Your task to perform on an android device: uninstall "Spotify: Music and Podcasts" Image 0: 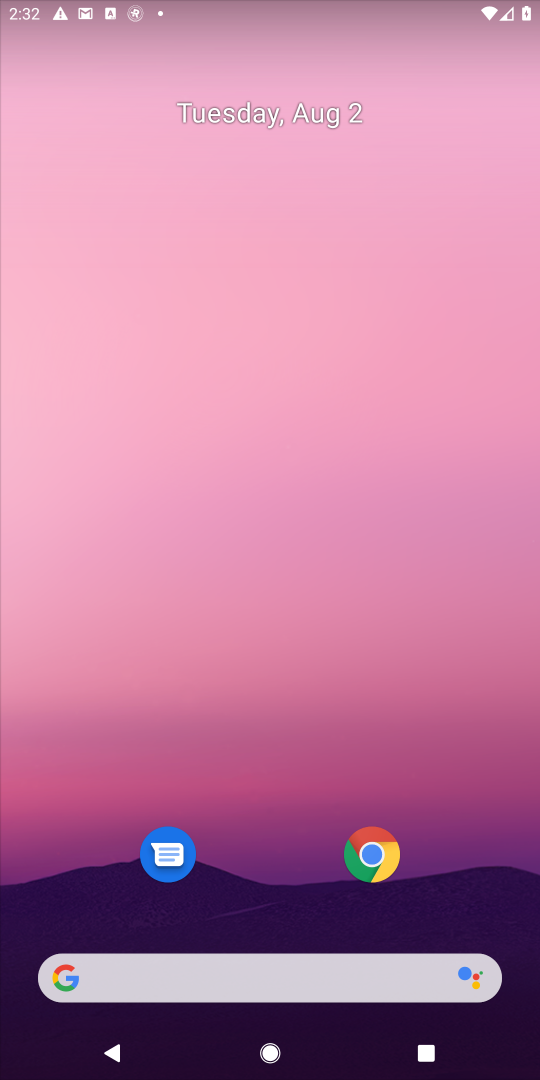
Step 0: drag from (318, 1062) to (305, 207)
Your task to perform on an android device: uninstall "Spotify: Music and Podcasts" Image 1: 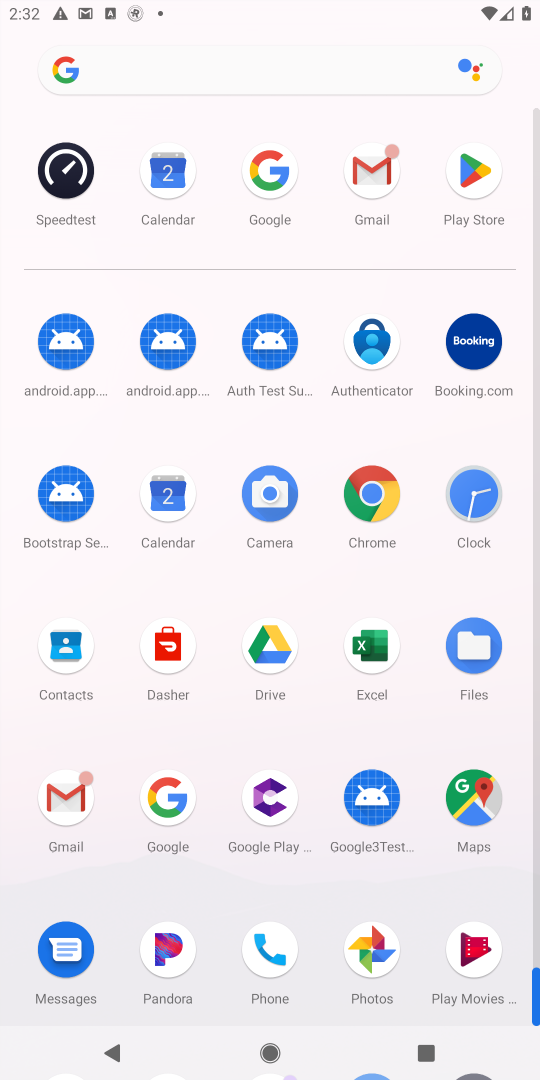
Step 1: click (484, 176)
Your task to perform on an android device: uninstall "Spotify: Music and Podcasts" Image 2: 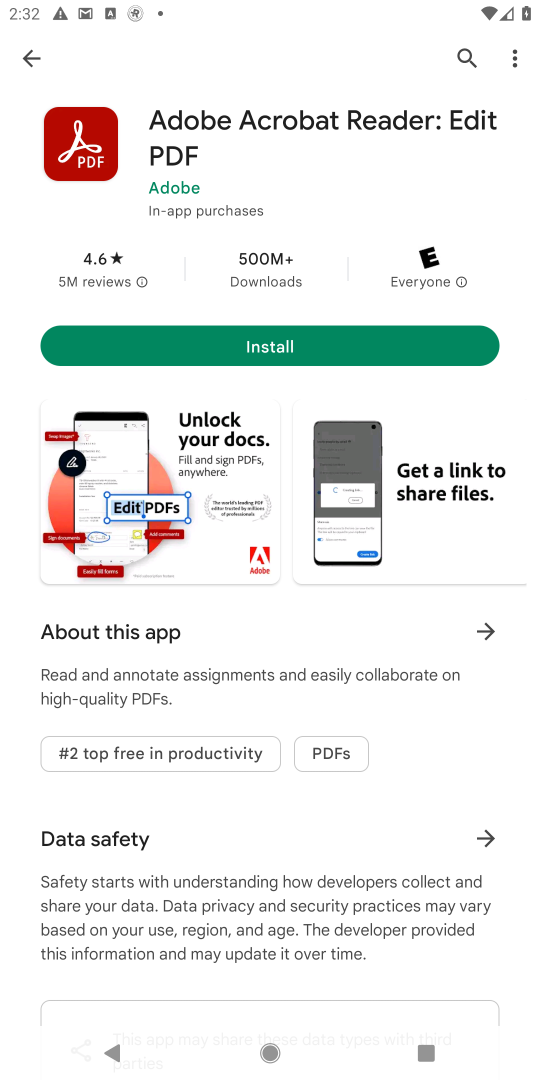
Step 2: click (467, 52)
Your task to perform on an android device: uninstall "Spotify: Music and Podcasts" Image 3: 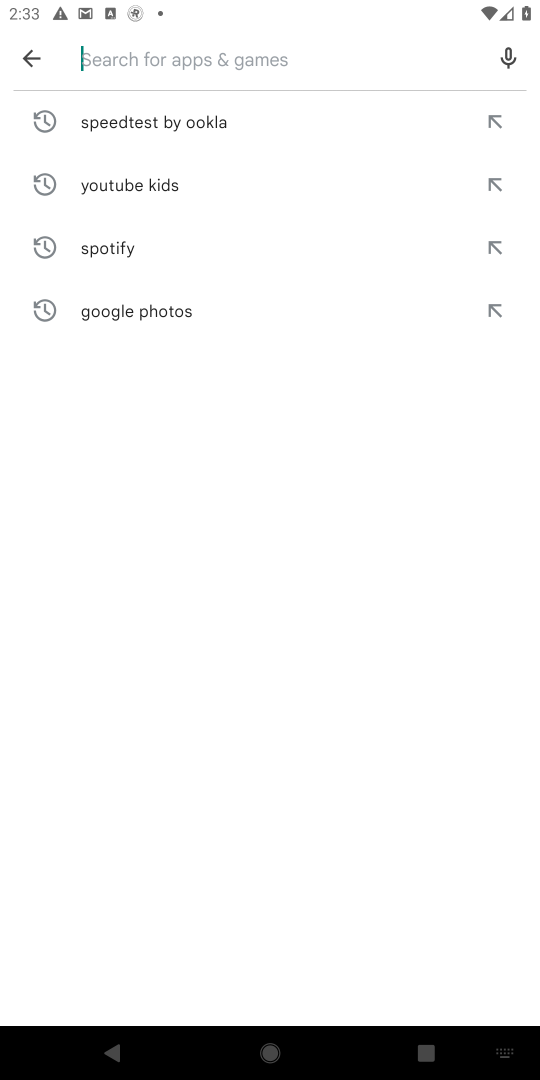
Step 3: type "Spotify: Music and Podcasts"
Your task to perform on an android device: uninstall "Spotify: Music and Podcasts" Image 4: 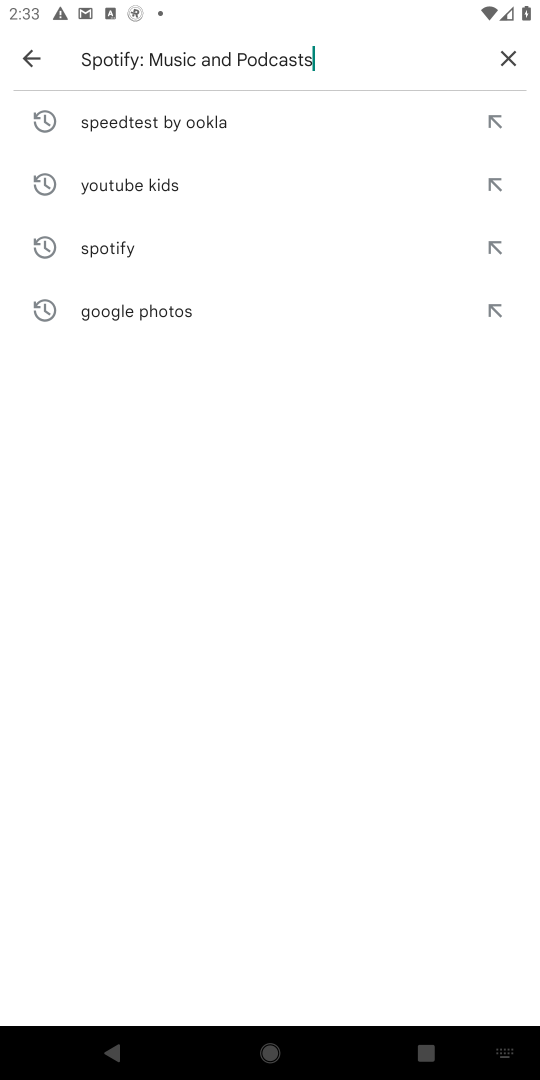
Step 4: type ""
Your task to perform on an android device: uninstall "Spotify: Music and Podcasts" Image 5: 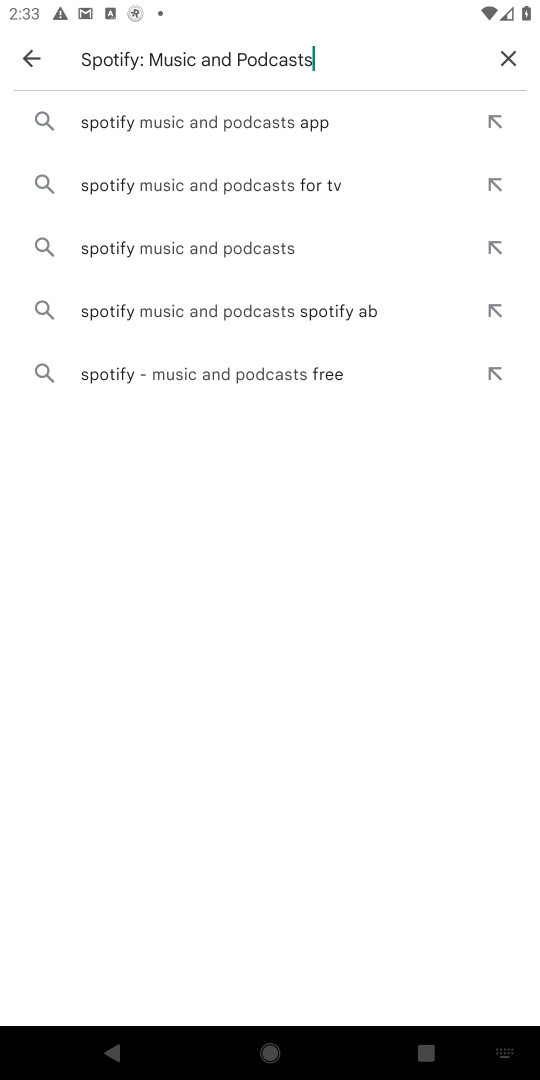
Step 5: click (178, 114)
Your task to perform on an android device: uninstall "Spotify: Music and Podcasts" Image 6: 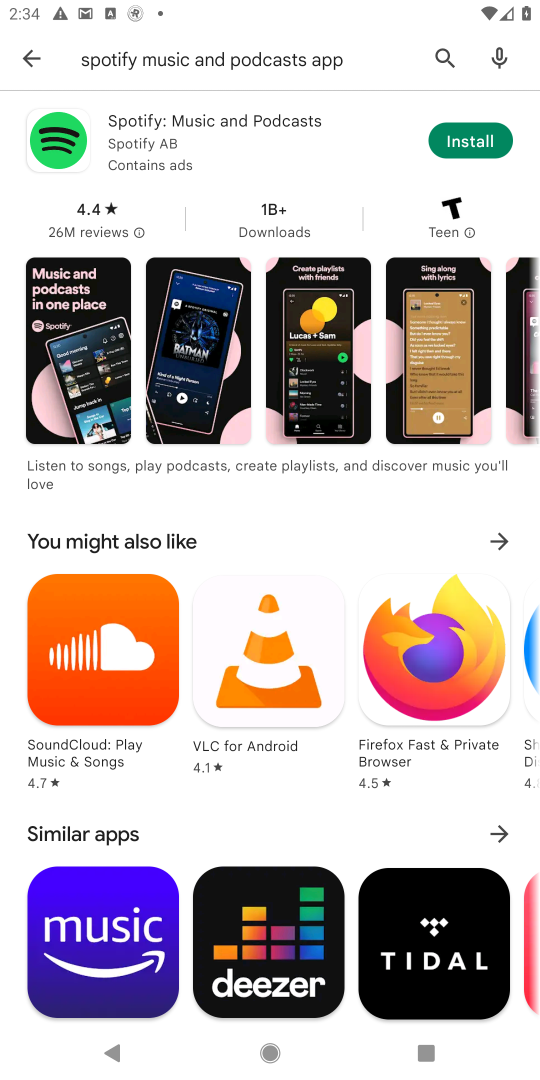
Step 6: click (186, 119)
Your task to perform on an android device: uninstall "Spotify: Music and Podcasts" Image 7: 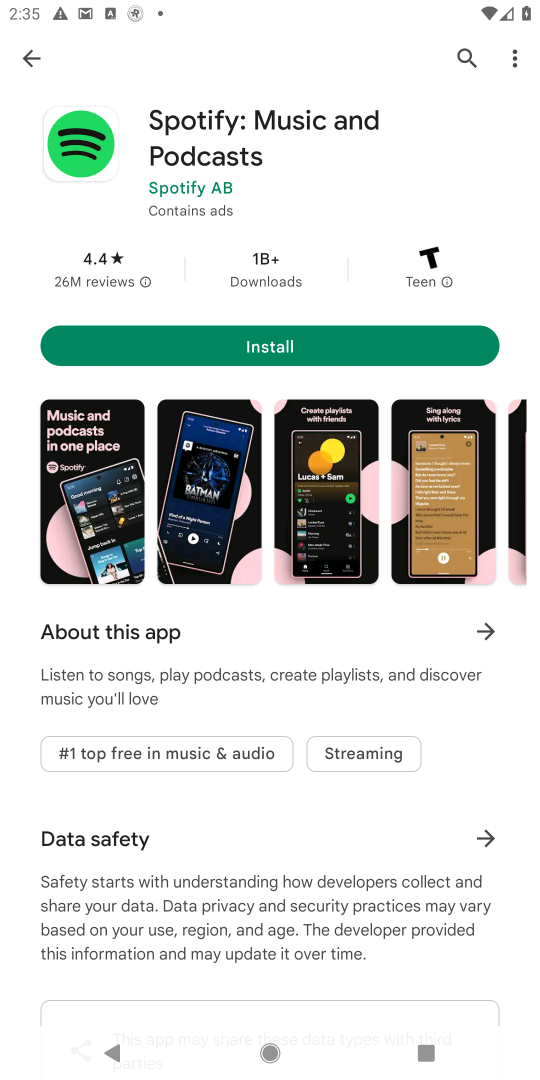
Step 7: task complete